Your task to perform on an android device: move a message to another label in the gmail app Image 0: 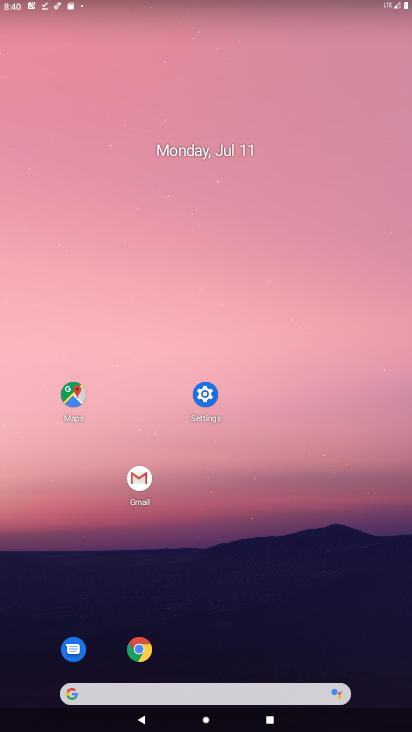
Step 0: click (146, 483)
Your task to perform on an android device: move a message to another label in the gmail app Image 1: 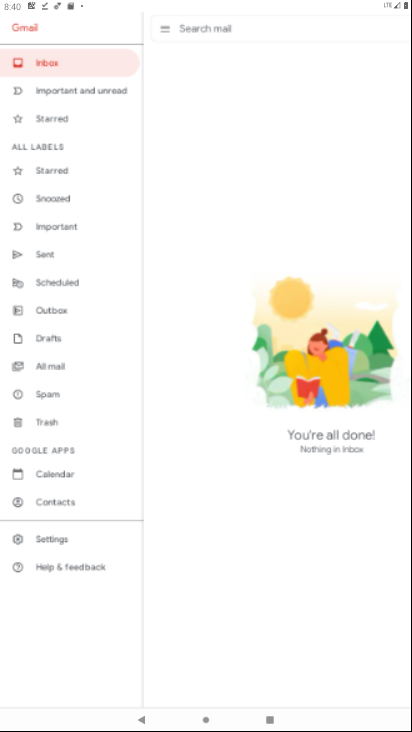
Step 1: task complete